Your task to perform on an android device: Show me recent news Image 0: 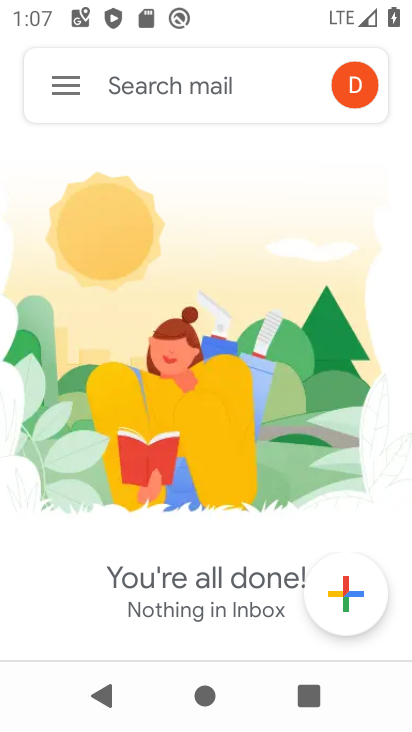
Step 0: press home button
Your task to perform on an android device: Show me recent news Image 1: 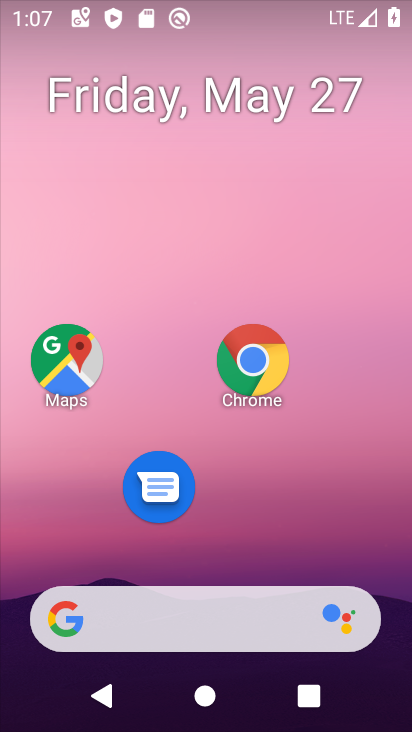
Step 1: drag from (258, 537) to (316, 30)
Your task to perform on an android device: Show me recent news Image 2: 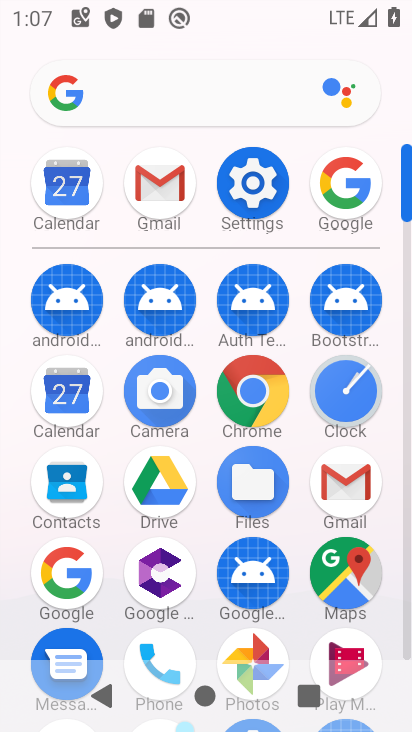
Step 2: click (345, 176)
Your task to perform on an android device: Show me recent news Image 3: 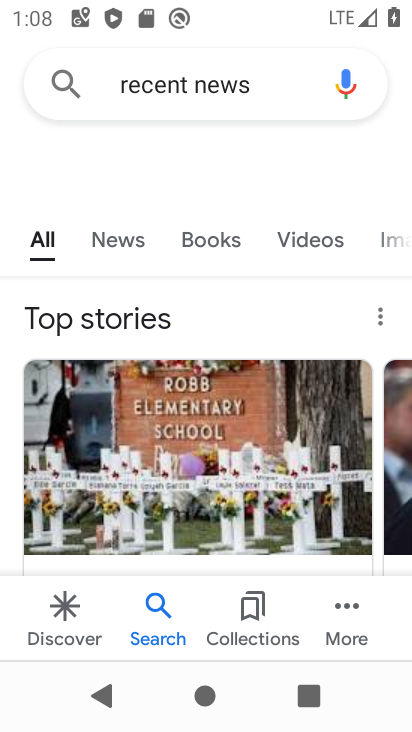
Step 3: task complete